Your task to perform on an android device: check storage Image 0: 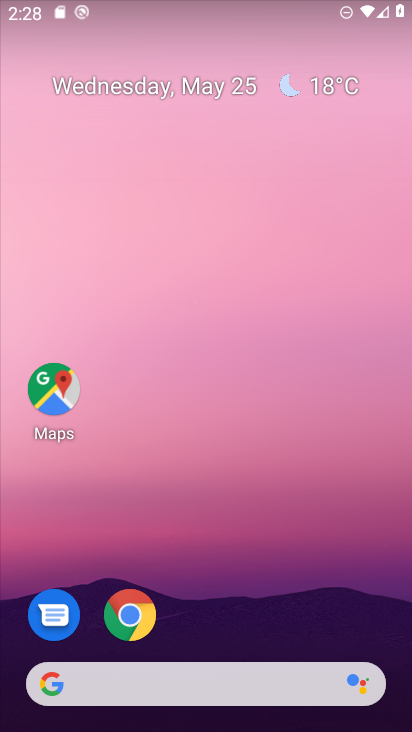
Step 0: drag from (297, 546) to (268, 32)
Your task to perform on an android device: check storage Image 1: 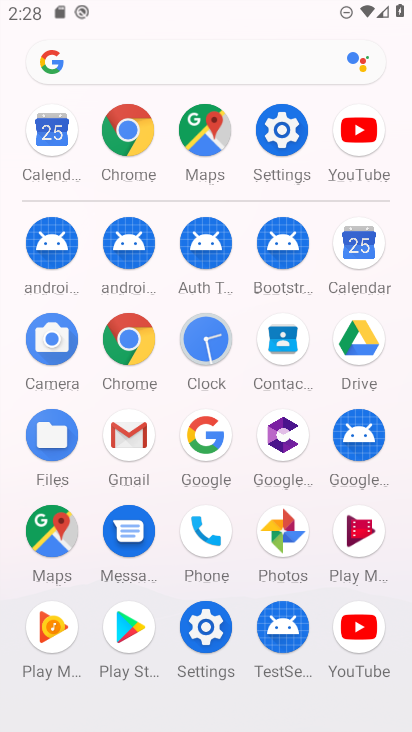
Step 1: click (277, 125)
Your task to perform on an android device: check storage Image 2: 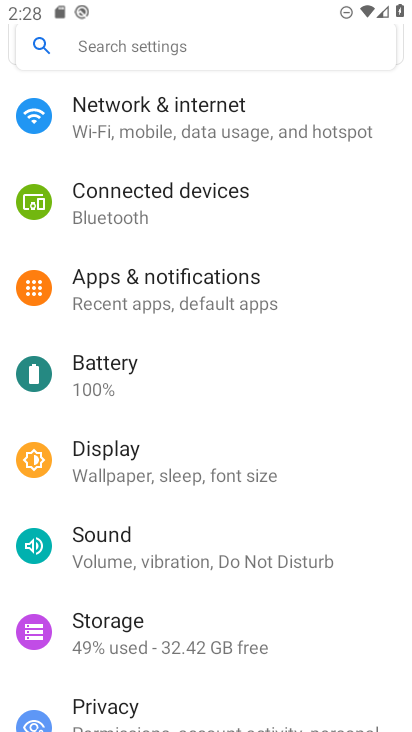
Step 2: click (161, 621)
Your task to perform on an android device: check storage Image 3: 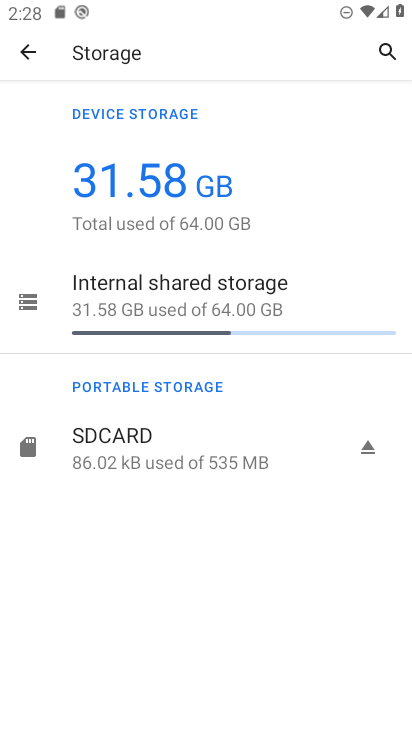
Step 3: task complete